Your task to perform on an android device: change the clock style Image 0: 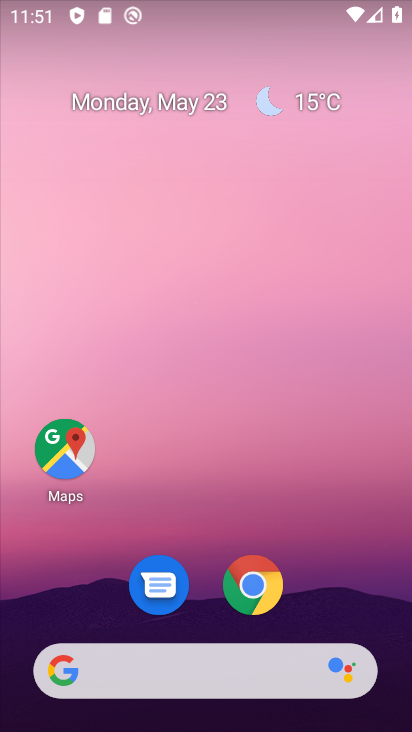
Step 0: drag from (249, 490) to (263, 9)
Your task to perform on an android device: change the clock style Image 1: 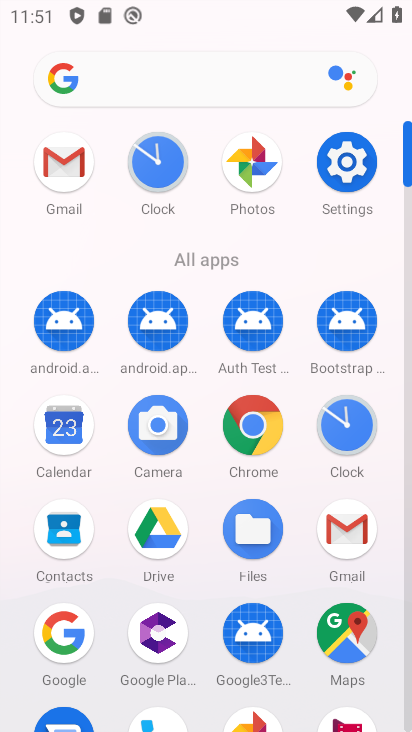
Step 1: click (337, 414)
Your task to perform on an android device: change the clock style Image 2: 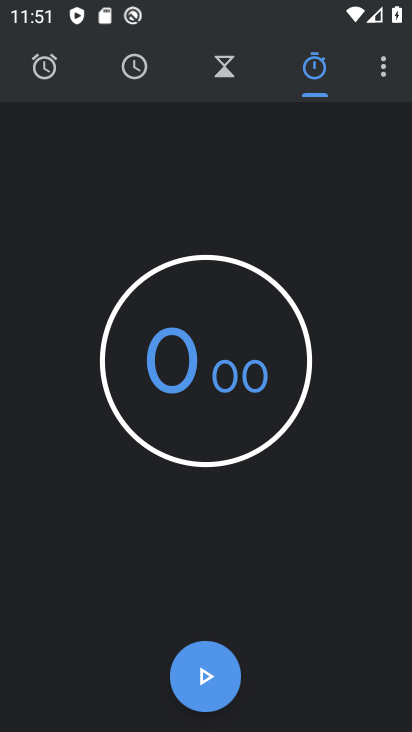
Step 2: click (131, 66)
Your task to perform on an android device: change the clock style Image 3: 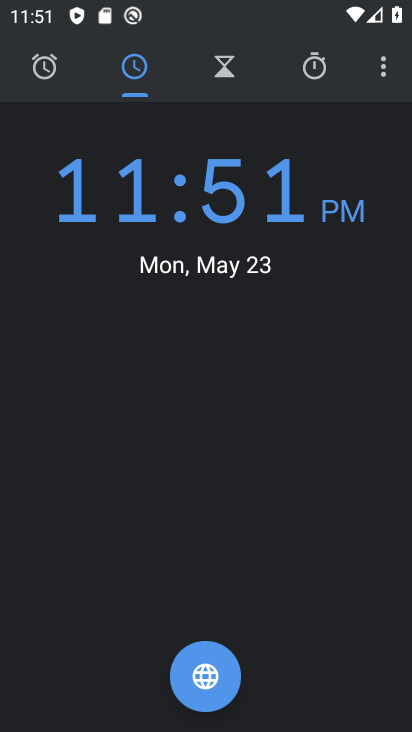
Step 3: click (385, 75)
Your task to perform on an android device: change the clock style Image 4: 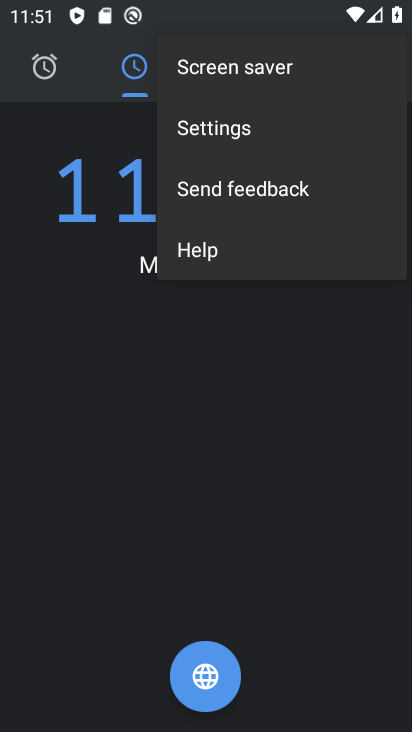
Step 4: click (304, 122)
Your task to perform on an android device: change the clock style Image 5: 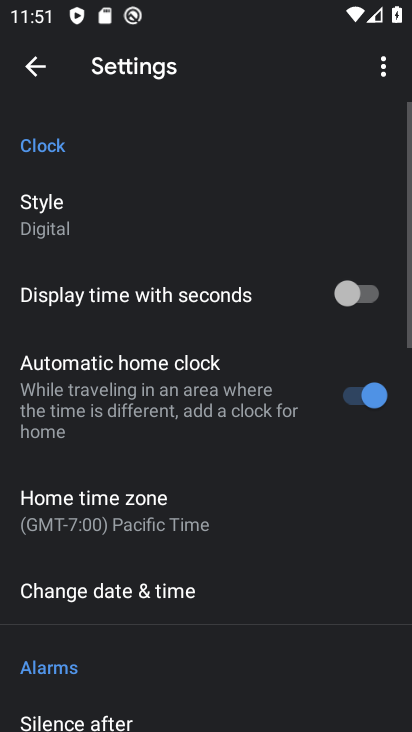
Step 5: click (88, 225)
Your task to perform on an android device: change the clock style Image 6: 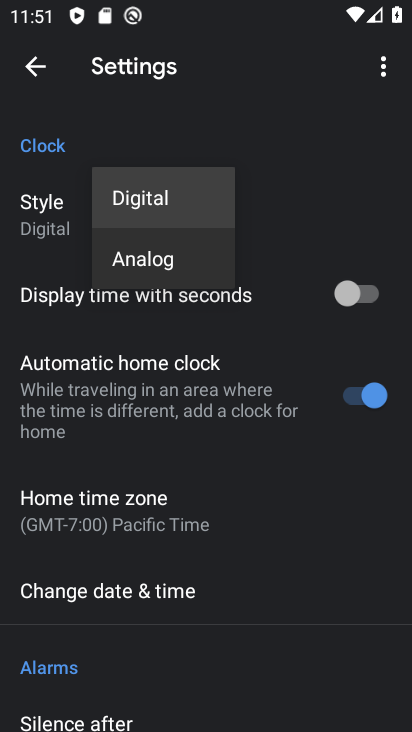
Step 6: click (114, 255)
Your task to perform on an android device: change the clock style Image 7: 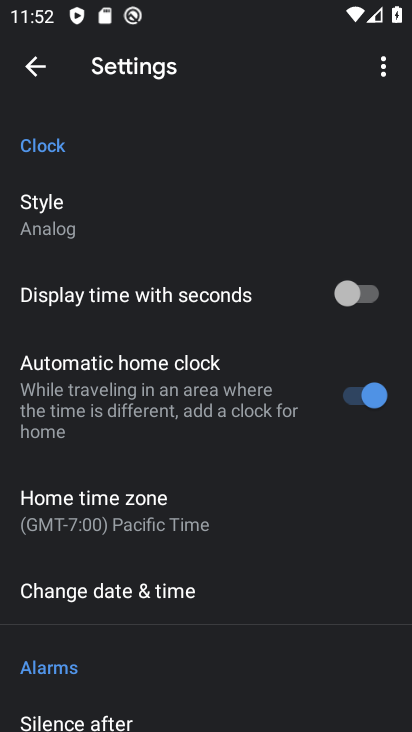
Step 7: click (34, 64)
Your task to perform on an android device: change the clock style Image 8: 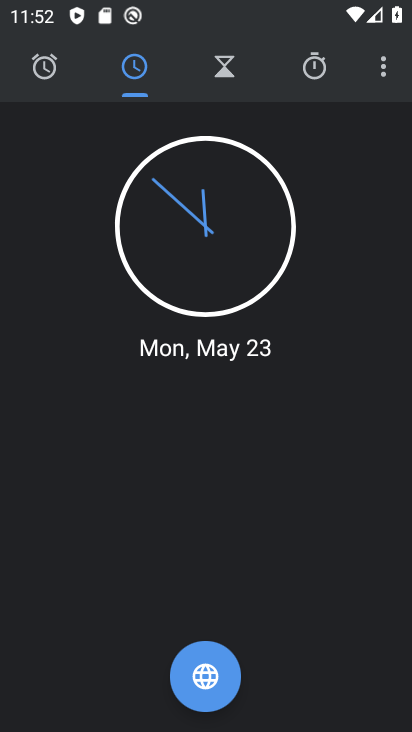
Step 8: task complete